Your task to perform on an android device: check android version Image 0: 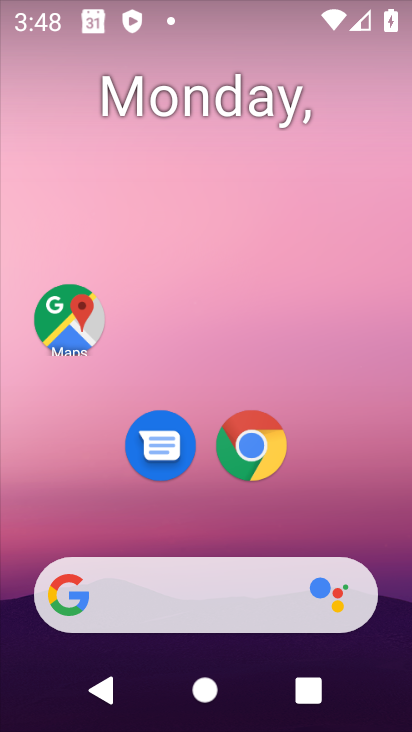
Step 0: drag from (219, 503) to (227, 153)
Your task to perform on an android device: check android version Image 1: 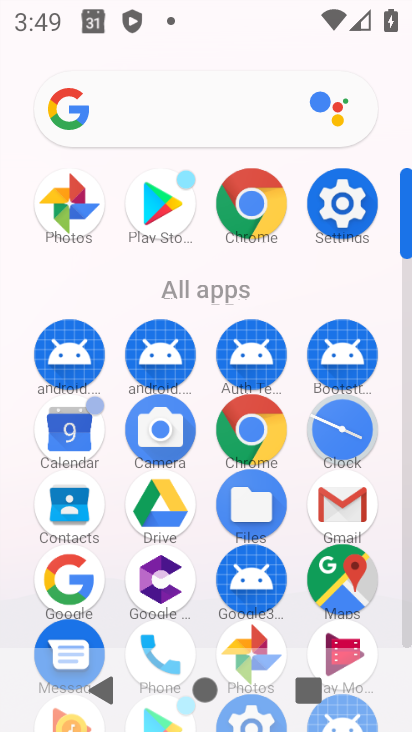
Step 1: drag from (292, 597) to (297, 507)
Your task to perform on an android device: check android version Image 2: 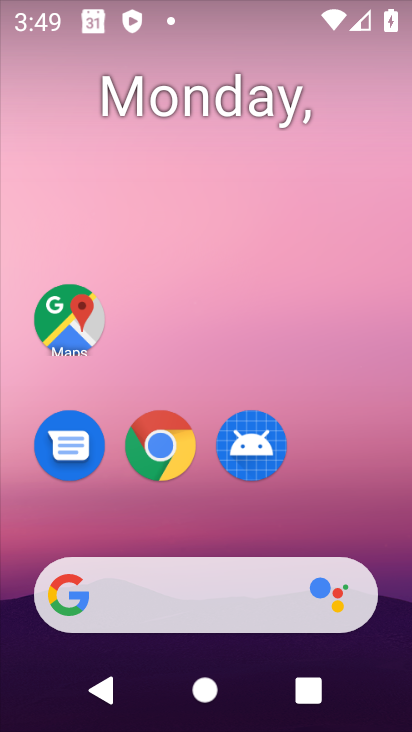
Step 2: drag from (286, 515) to (300, 164)
Your task to perform on an android device: check android version Image 3: 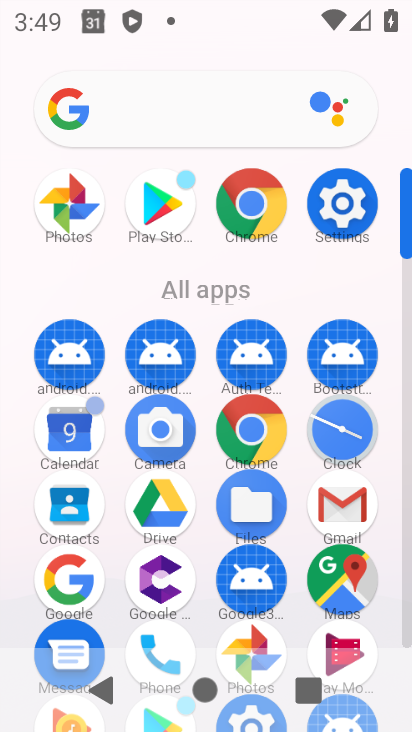
Step 3: click (410, 490)
Your task to perform on an android device: check android version Image 4: 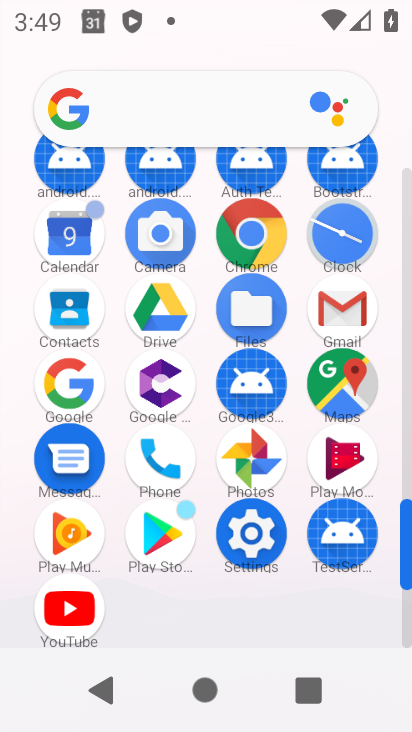
Step 4: click (252, 557)
Your task to perform on an android device: check android version Image 5: 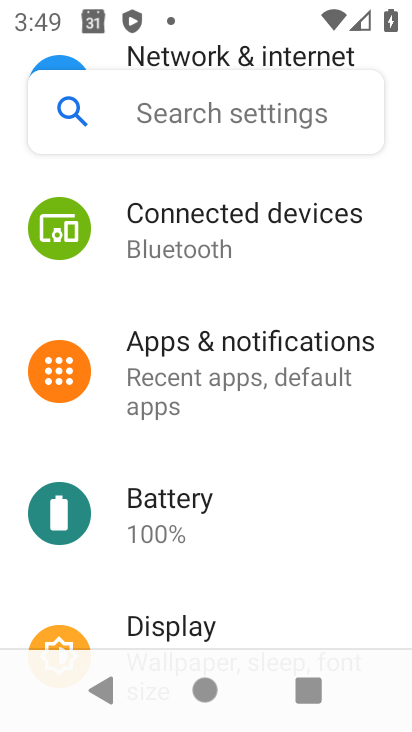
Step 5: drag from (228, 601) to (151, 185)
Your task to perform on an android device: check android version Image 6: 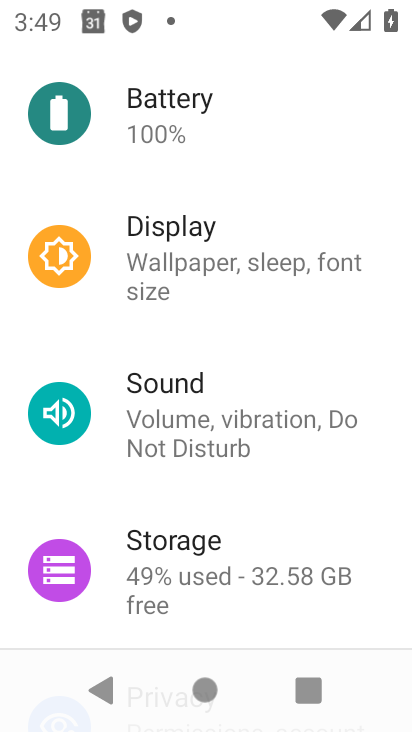
Step 6: drag from (243, 515) to (232, 187)
Your task to perform on an android device: check android version Image 7: 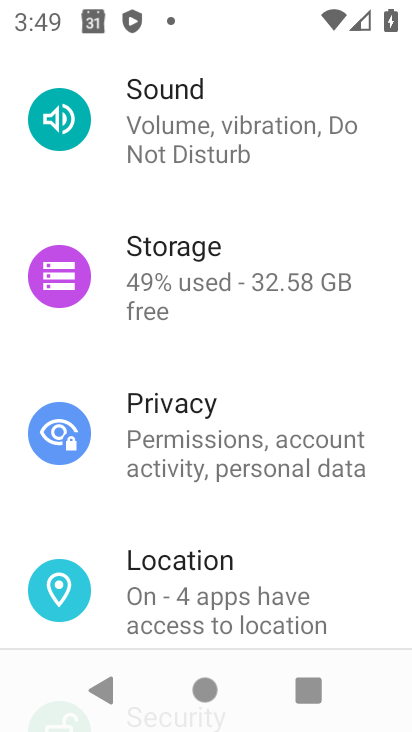
Step 7: drag from (242, 517) to (233, 238)
Your task to perform on an android device: check android version Image 8: 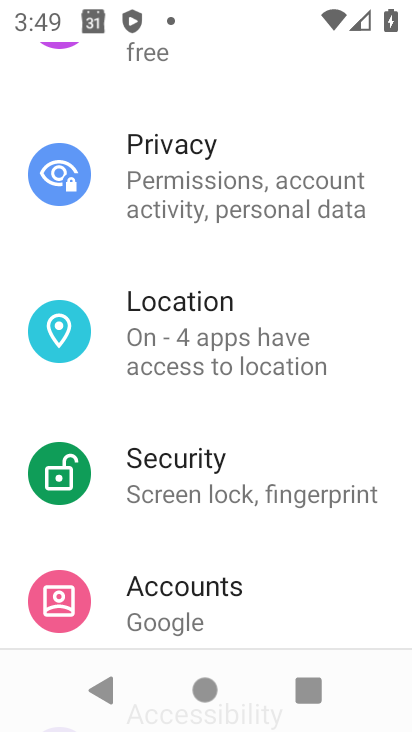
Step 8: drag from (239, 553) to (216, 291)
Your task to perform on an android device: check android version Image 9: 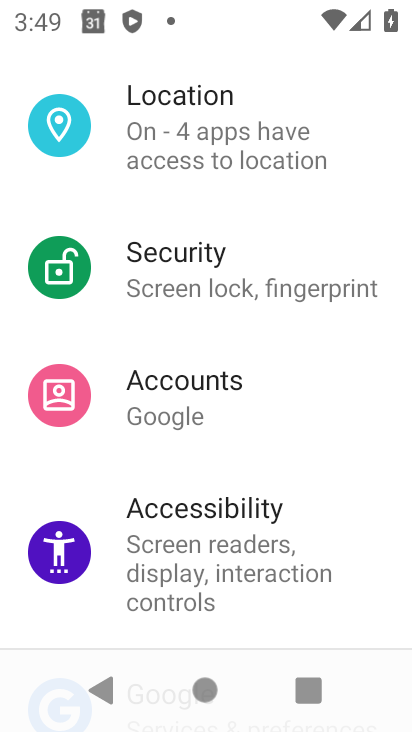
Step 9: drag from (218, 582) to (204, 390)
Your task to perform on an android device: check android version Image 10: 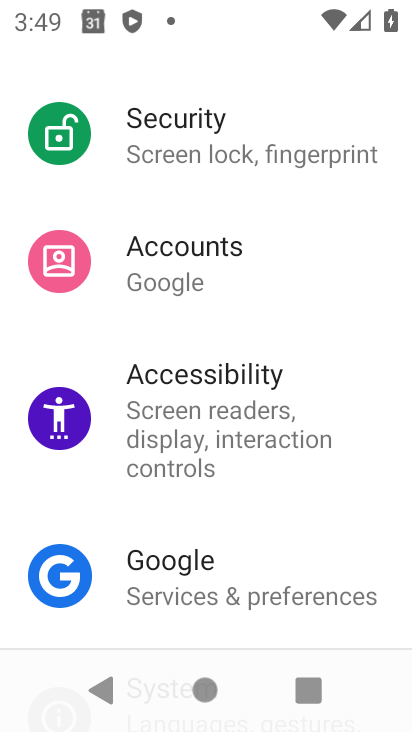
Step 10: drag from (217, 565) to (197, 345)
Your task to perform on an android device: check android version Image 11: 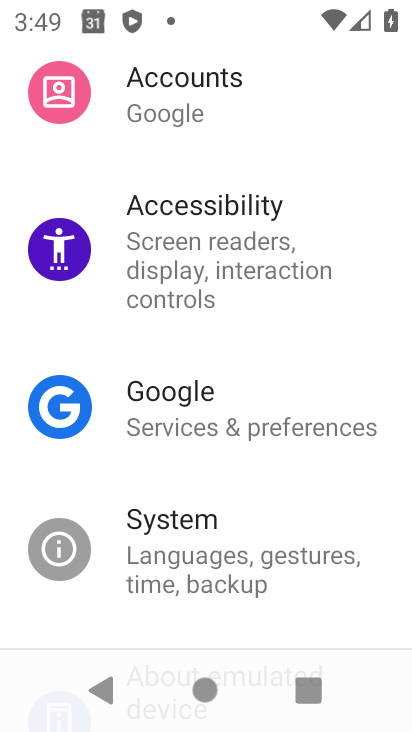
Step 11: drag from (200, 586) to (174, 243)
Your task to perform on an android device: check android version Image 12: 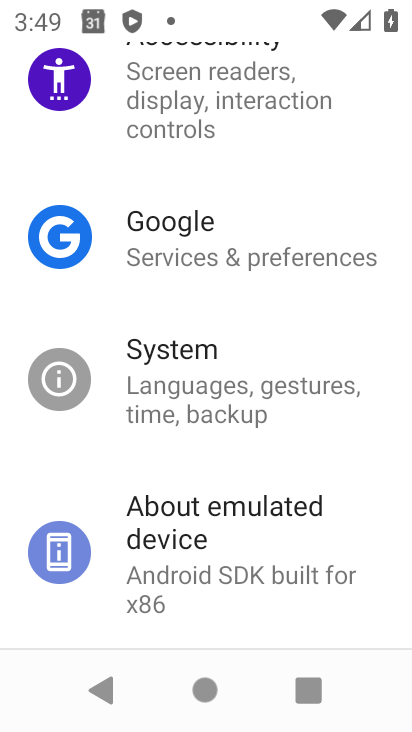
Step 12: drag from (177, 550) to (169, 306)
Your task to perform on an android device: check android version Image 13: 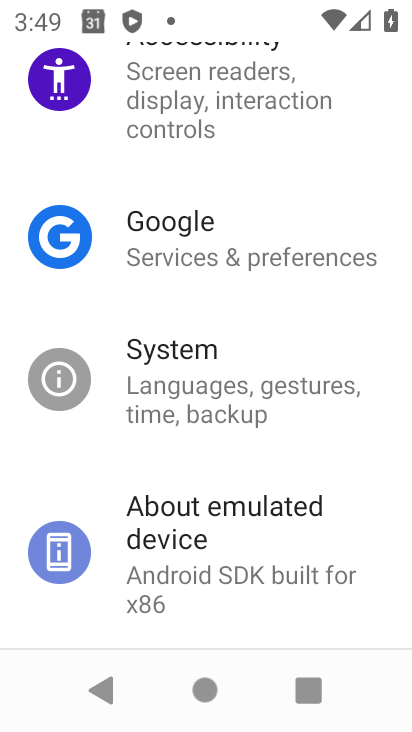
Step 13: click (188, 550)
Your task to perform on an android device: check android version Image 14: 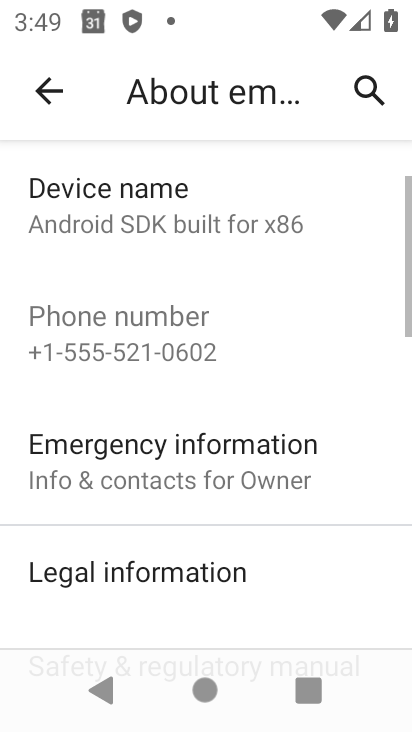
Step 14: drag from (188, 550) to (182, 212)
Your task to perform on an android device: check android version Image 15: 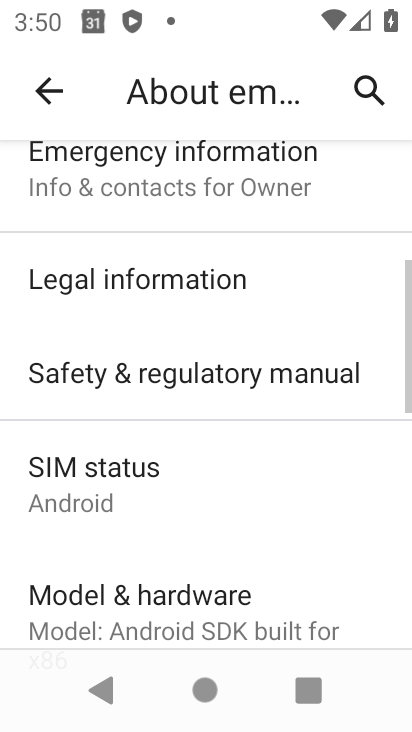
Step 15: drag from (230, 476) to (208, 269)
Your task to perform on an android device: check android version Image 16: 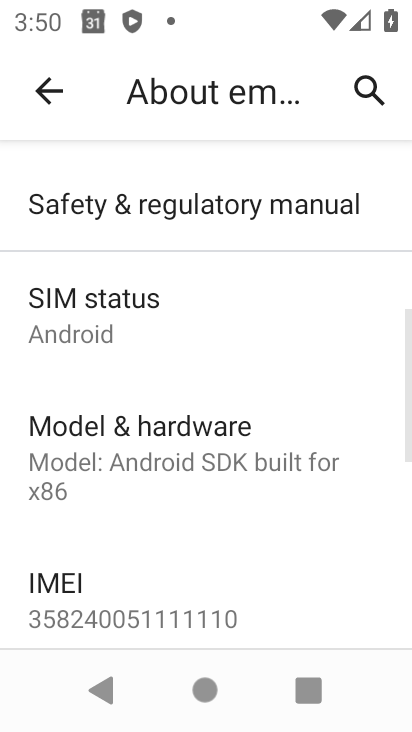
Step 16: drag from (234, 532) to (282, 319)
Your task to perform on an android device: check android version Image 17: 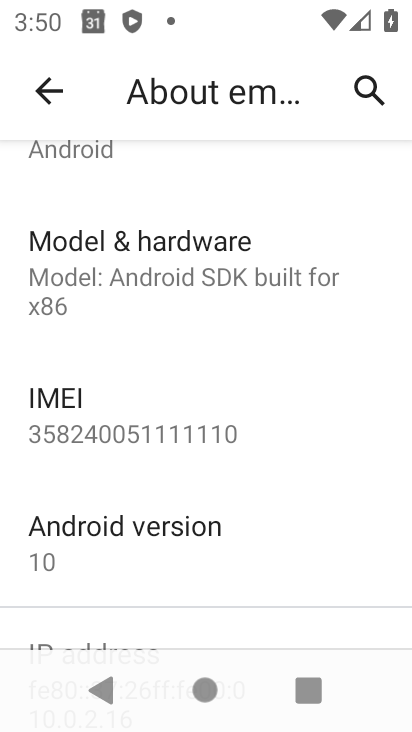
Step 17: drag from (306, 501) to (331, 321)
Your task to perform on an android device: check android version Image 18: 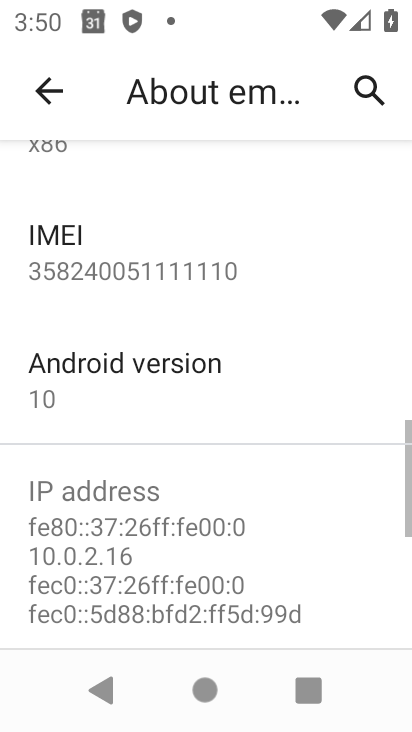
Step 18: click (132, 393)
Your task to perform on an android device: check android version Image 19: 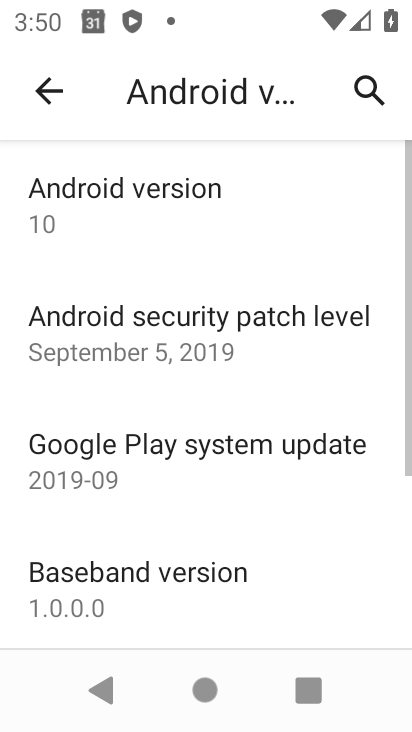
Step 19: task complete